Your task to perform on an android device: Open accessibility settings Image 0: 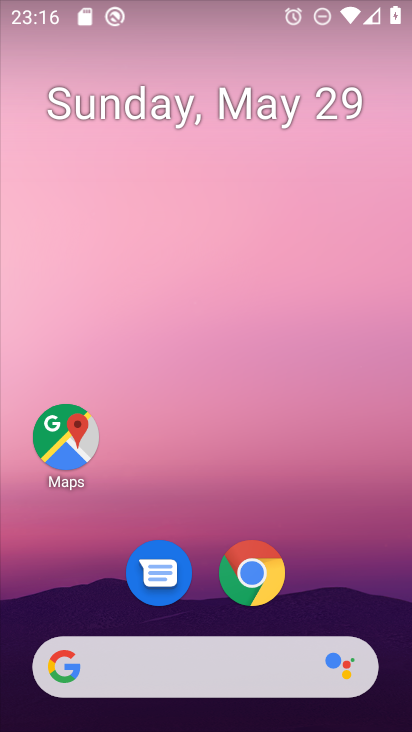
Step 0: drag from (224, 498) to (235, 17)
Your task to perform on an android device: Open accessibility settings Image 1: 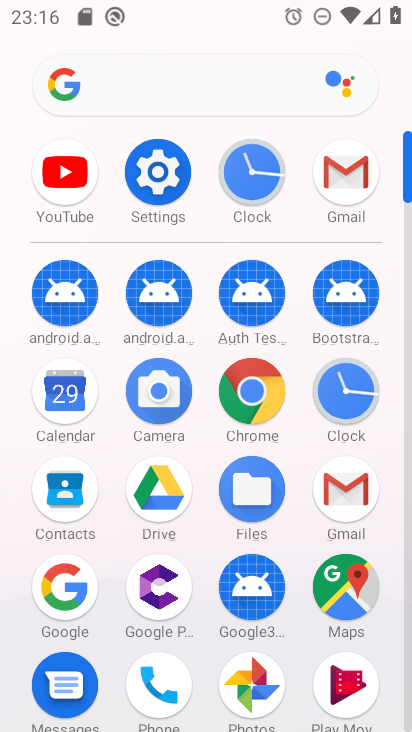
Step 1: click (167, 172)
Your task to perform on an android device: Open accessibility settings Image 2: 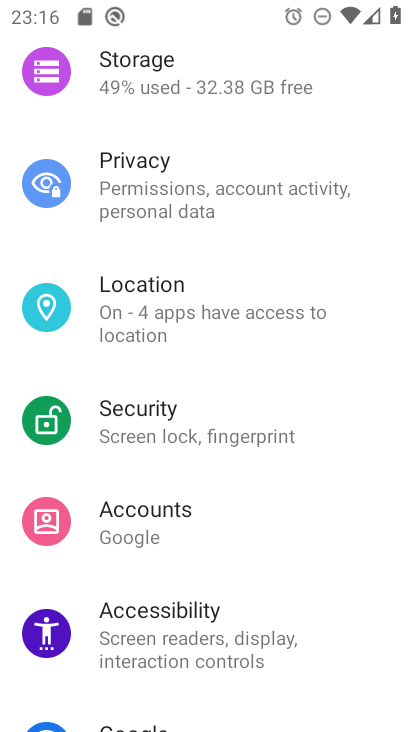
Step 2: click (220, 646)
Your task to perform on an android device: Open accessibility settings Image 3: 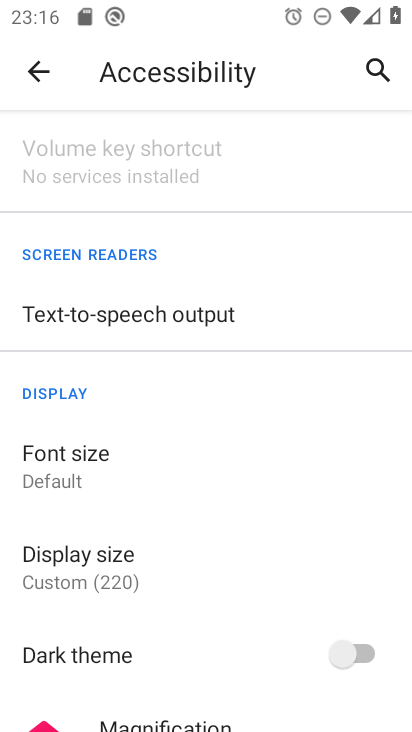
Step 3: task complete